Your task to perform on an android device: add a contact Image 0: 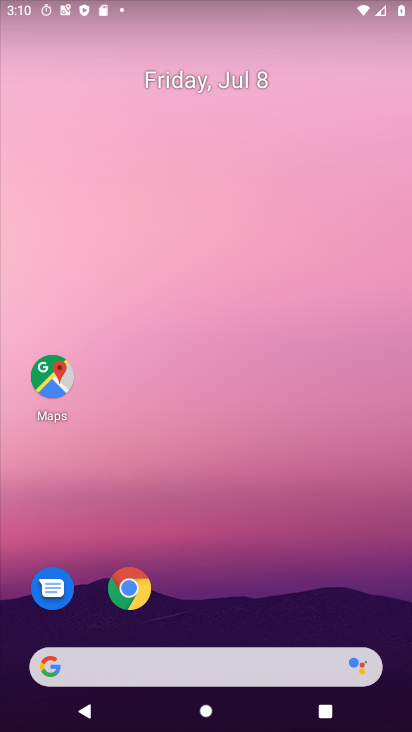
Step 0: press home button
Your task to perform on an android device: add a contact Image 1: 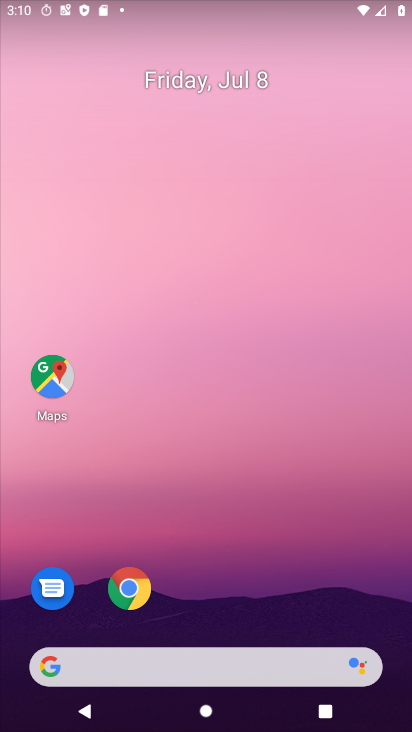
Step 1: press home button
Your task to perform on an android device: add a contact Image 2: 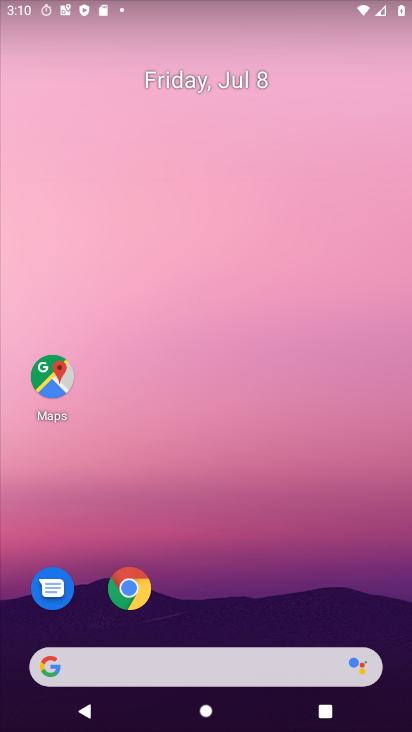
Step 2: drag from (248, 620) to (270, 151)
Your task to perform on an android device: add a contact Image 3: 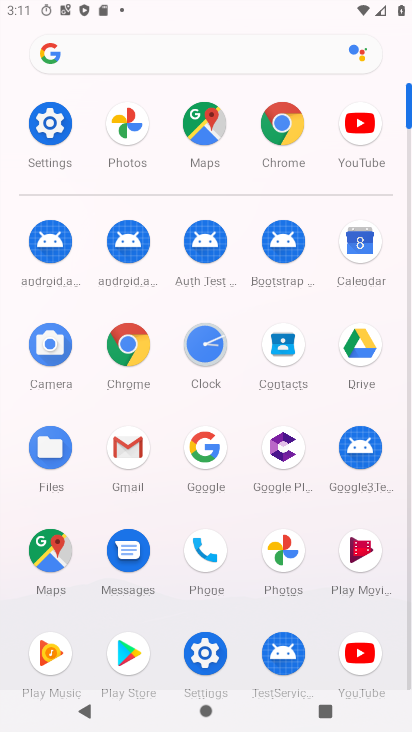
Step 3: click (281, 357)
Your task to perform on an android device: add a contact Image 4: 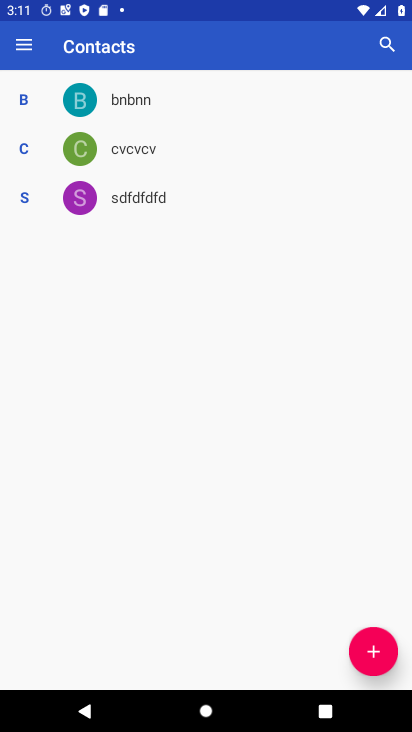
Step 4: click (374, 654)
Your task to perform on an android device: add a contact Image 5: 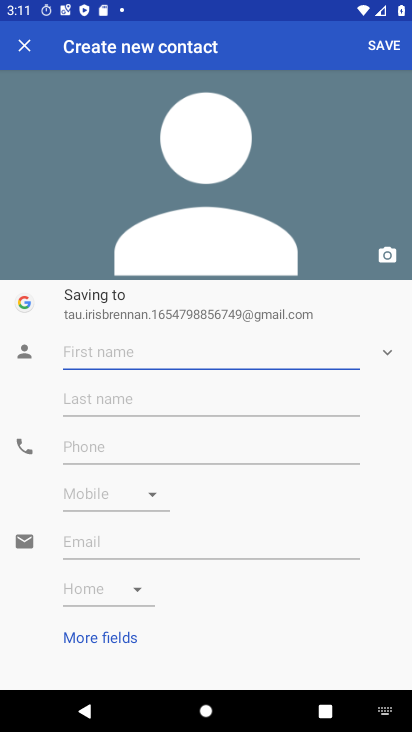
Step 5: type "hghghghg"
Your task to perform on an android device: add a contact Image 6: 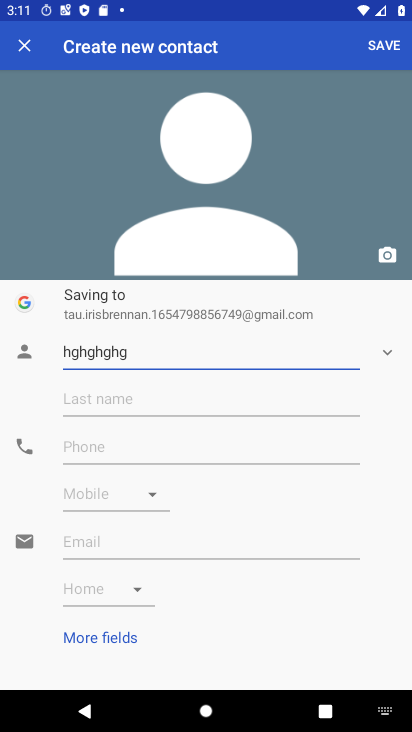
Step 6: click (125, 438)
Your task to perform on an android device: add a contact Image 7: 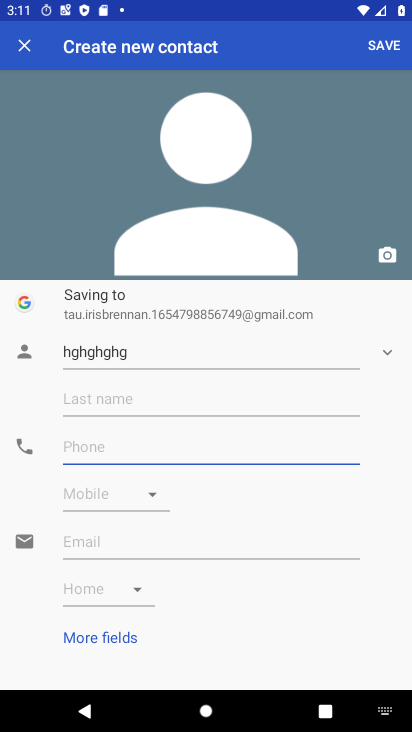
Step 7: type "6767676"
Your task to perform on an android device: add a contact Image 8: 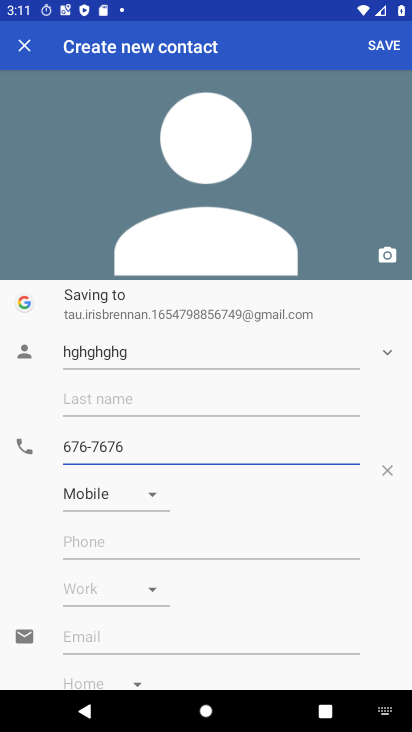
Step 8: click (377, 47)
Your task to perform on an android device: add a contact Image 9: 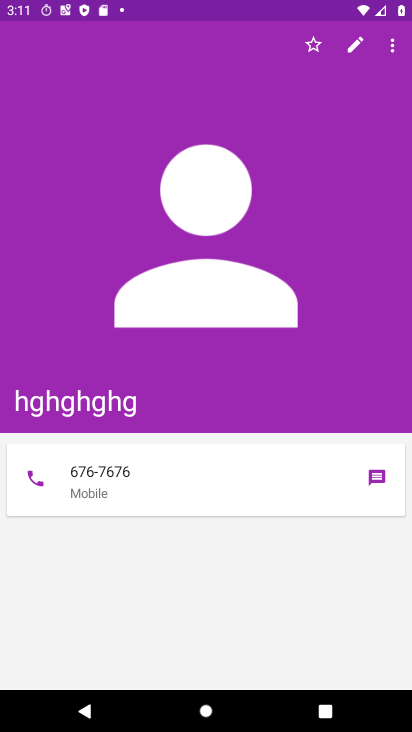
Step 9: task complete